Your task to perform on an android device: Open maps Image 0: 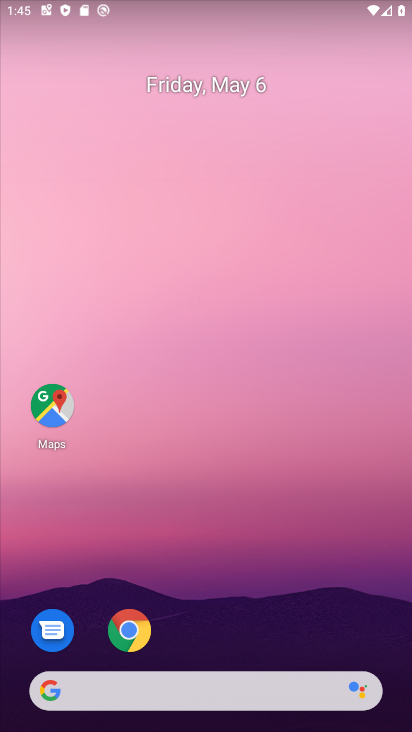
Step 0: click (61, 405)
Your task to perform on an android device: Open maps Image 1: 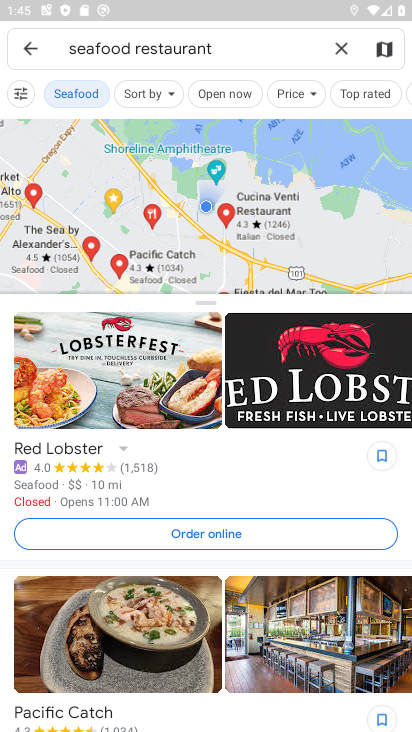
Step 1: click (342, 45)
Your task to perform on an android device: Open maps Image 2: 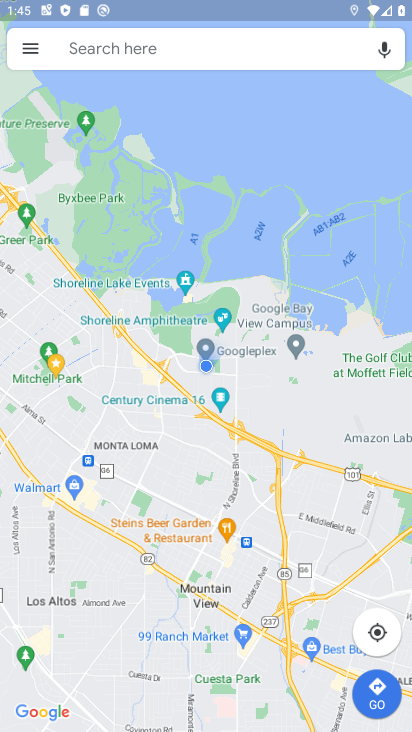
Step 2: task complete